Your task to perform on an android device: turn on notifications settings in the gmail app Image 0: 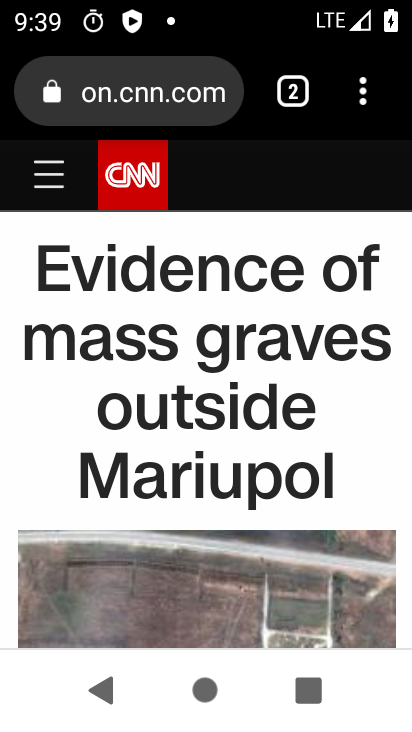
Step 0: press home button
Your task to perform on an android device: turn on notifications settings in the gmail app Image 1: 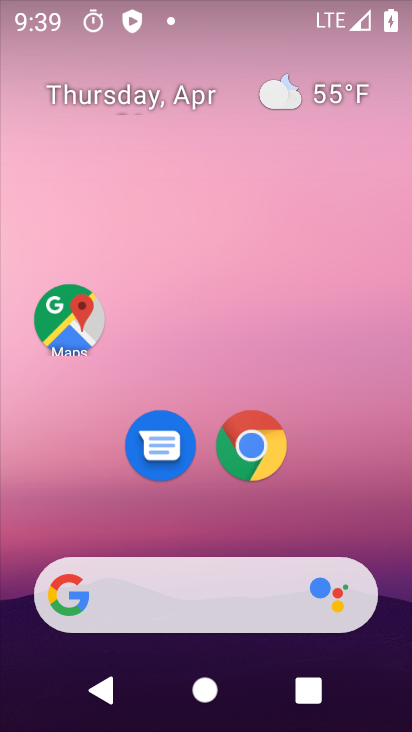
Step 1: drag from (380, 583) to (369, 26)
Your task to perform on an android device: turn on notifications settings in the gmail app Image 2: 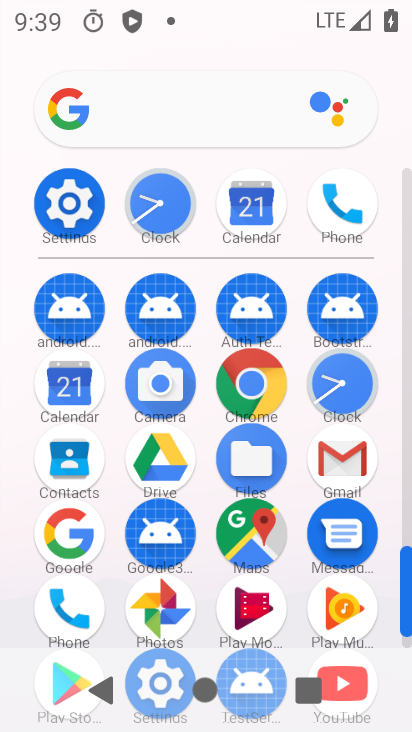
Step 2: click (348, 465)
Your task to perform on an android device: turn on notifications settings in the gmail app Image 3: 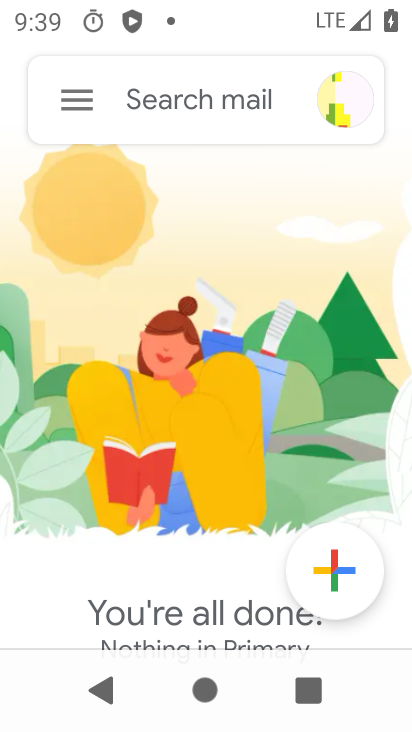
Step 3: click (79, 104)
Your task to perform on an android device: turn on notifications settings in the gmail app Image 4: 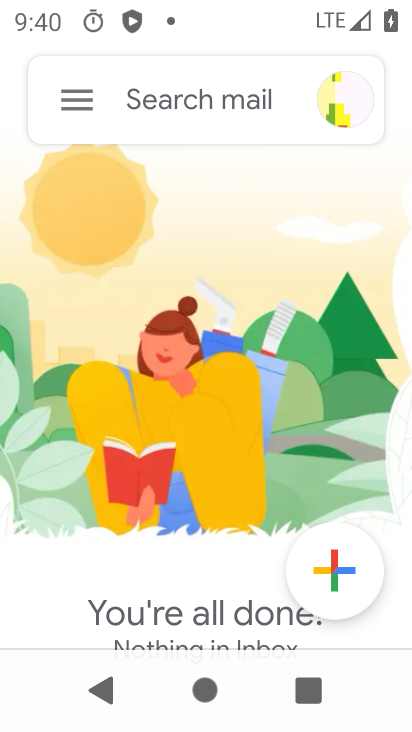
Step 4: click (79, 104)
Your task to perform on an android device: turn on notifications settings in the gmail app Image 5: 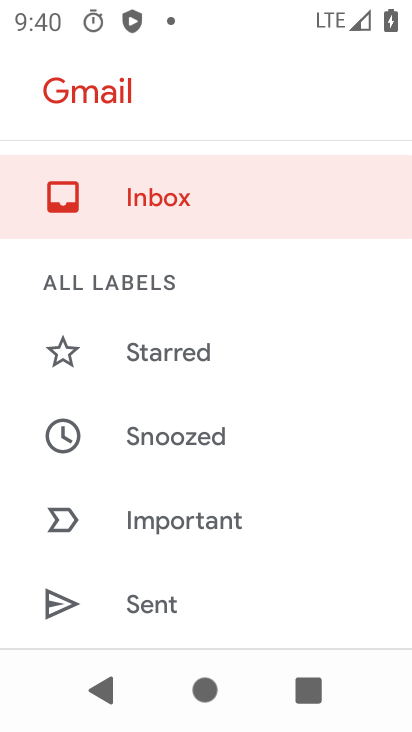
Step 5: drag from (242, 554) to (233, 55)
Your task to perform on an android device: turn on notifications settings in the gmail app Image 6: 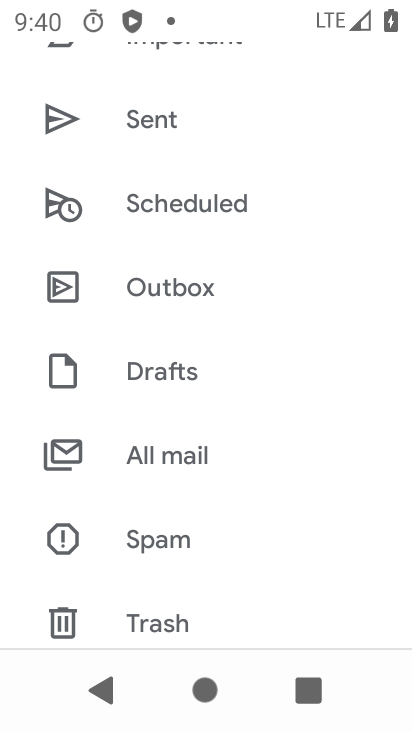
Step 6: drag from (218, 457) to (219, 2)
Your task to perform on an android device: turn on notifications settings in the gmail app Image 7: 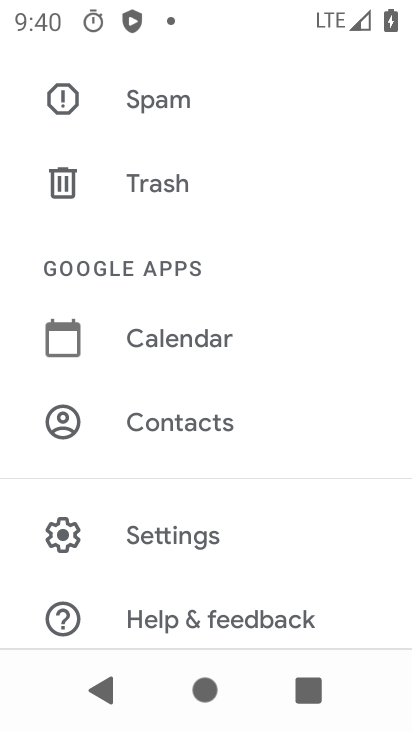
Step 7: drag from (264, 522) to (266, 174)
Your task to perform on an android device: turn on notifications settings in the gmail app Image 8: 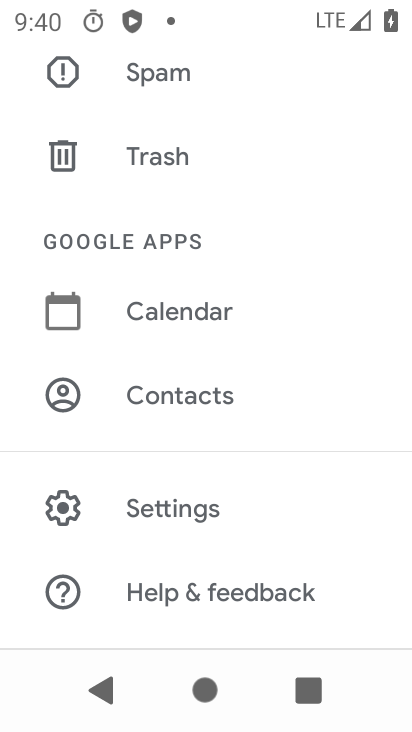
Step 8: click (192, 515)
Your task to perform on an android device: turn on notifications settings in the gmail app Image 9: 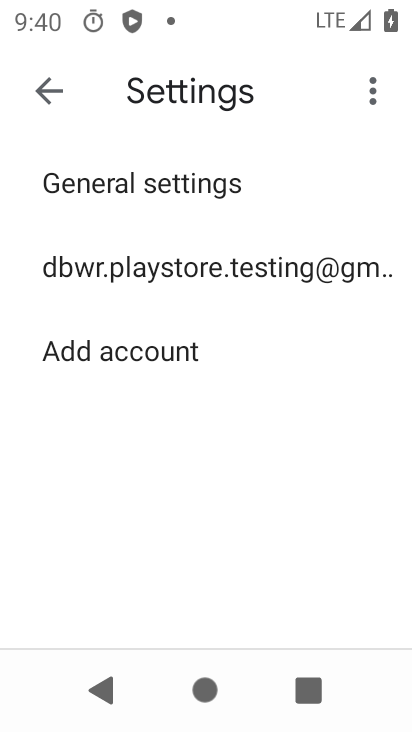
Step 9: click (104, 190)
Your task to perform on an android device: turn on notifications settings in the gmail app Image 10: 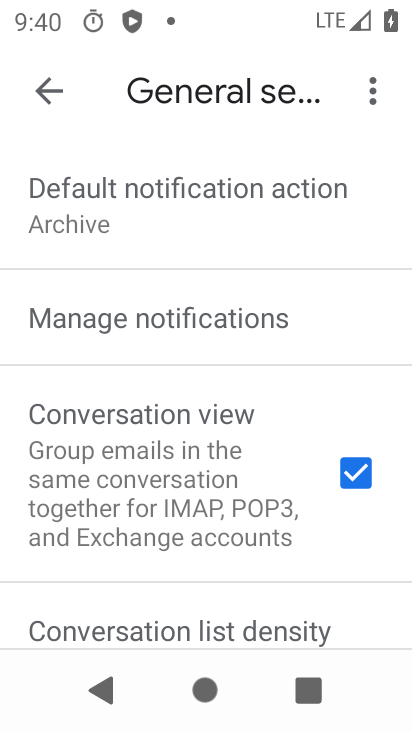
Step 10: click (195, 324)
Your task to perform on an android device: turn on notifications settings in the gmail app Image 11: 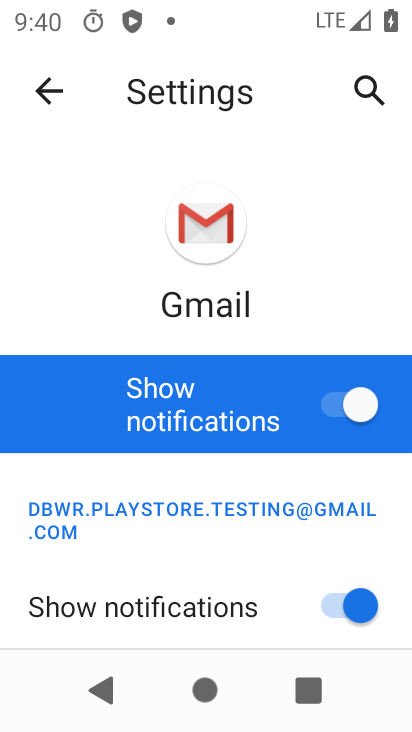
Step 11: task complete